Your task to perform on an android device: turn pop-ups off in chrome Image 0: 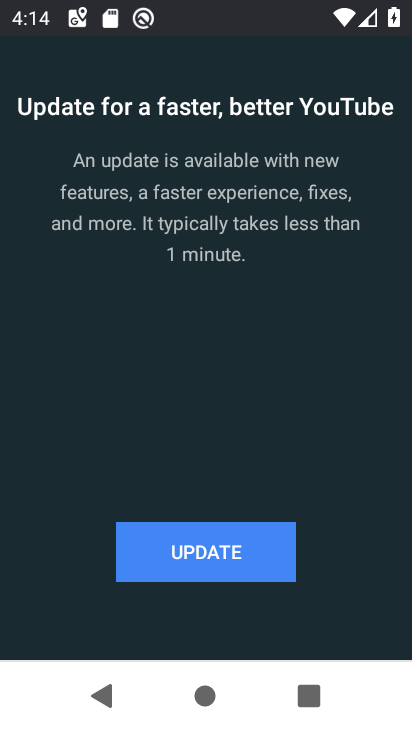
Step 0: press home button
Your task to perform on an android device: turn pop-ups off in chrome Image 1: 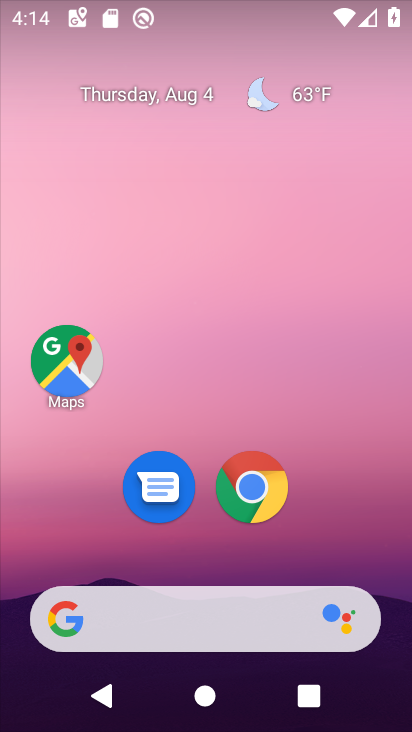
Step 1: click (257, 489)
Your task to perform on an android device: turn pop-ups off in chrome Image 2: 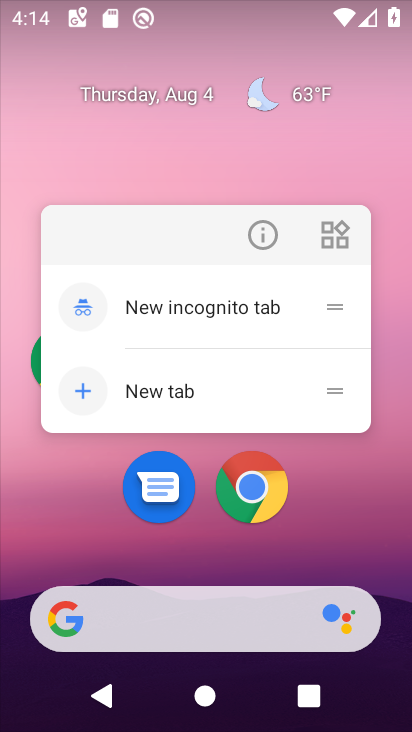
Step 2: click (294, 480)
Your task to perform on an android device: turn pop-ups off in chrome Image 3: 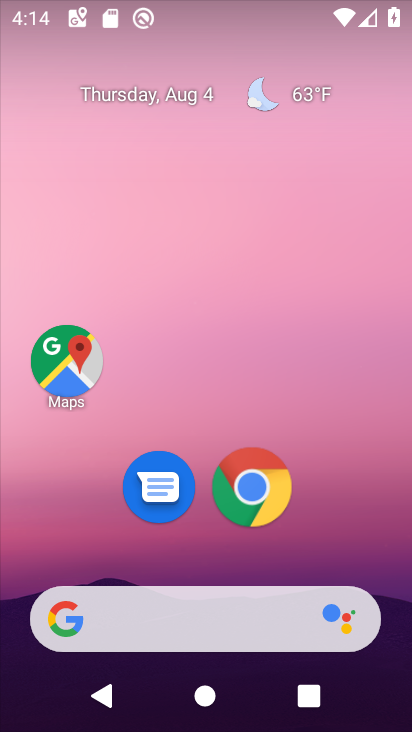
Step 3: click (264, 490)
Your task to perform on an android device: turn pop-ups off in chrome Image 4: 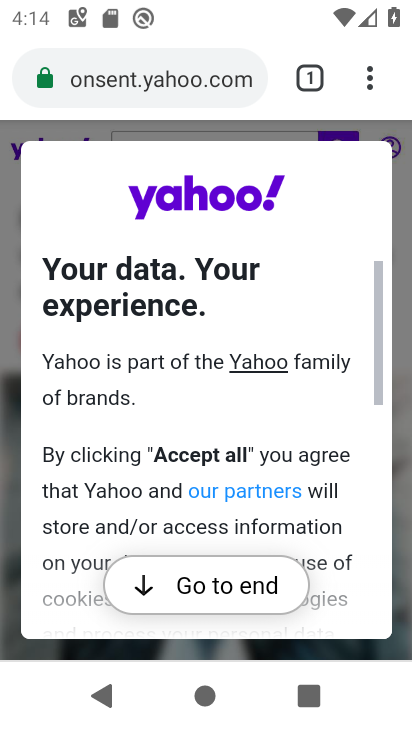
Step 4: drag from (356, 76) to (141, 546)
Your task to perform on an android device: turn pop-ups off in chrome Image 5: 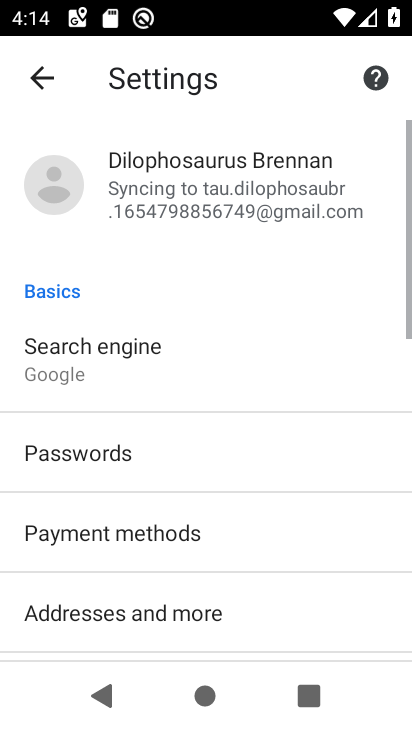
Step 5: drag from (184, 599) to (284, 46)
Your task to perform on an android device: turn pop-ups off in chrome Image 6: 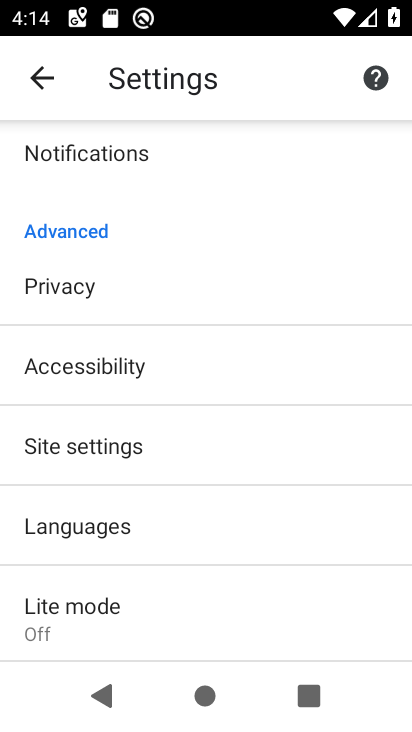
Step 6: click (72, 436)
Your task to perform on an android device: turn pop-ups off in chrome Image 7: 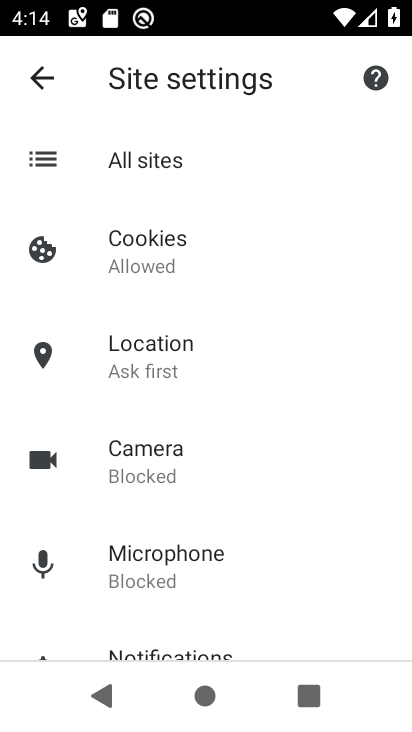
Step 7: drag from (191, 575) to (242, 50)
Your task to perform on an android device: turn pop-ups off in chrome Image 8: 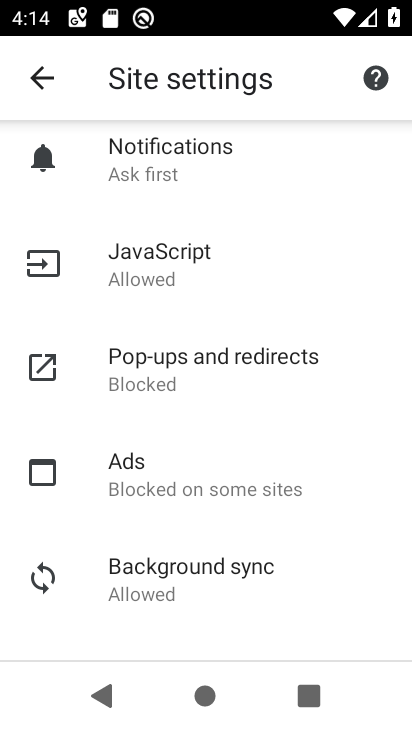
Step 8: drag from (170, 523) to (191, 451)
Your task to perform on an android device: turn pop-ups off in chrome Image 9: 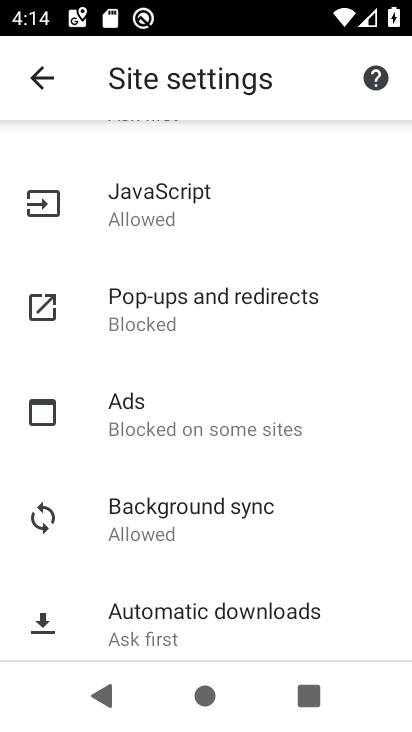
Step 9: click (183, 295)
Your task to perform on an android device: turn pop-ups off in chrome Image 10: 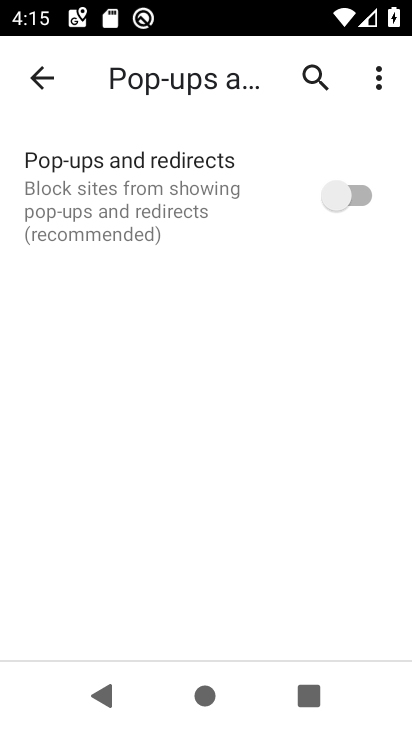
Step 10: task complete